Your task to perform on an android device: see creations saved in the google photos Image 0: 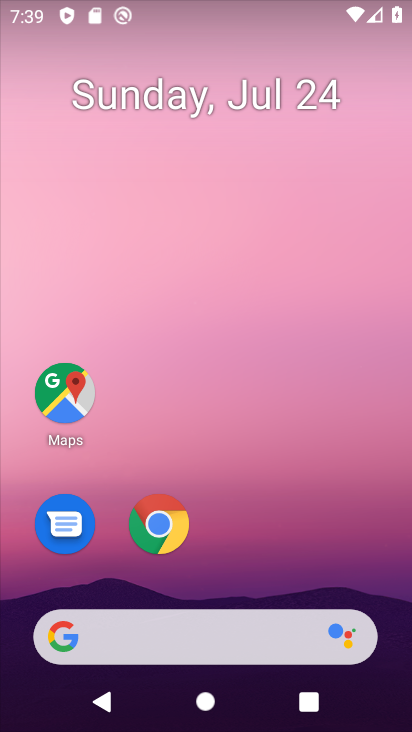
Step 0: drag from (259, 120) to (266, 33)
Your task to perform on an android device: see creations saved in the google photos Image 1: 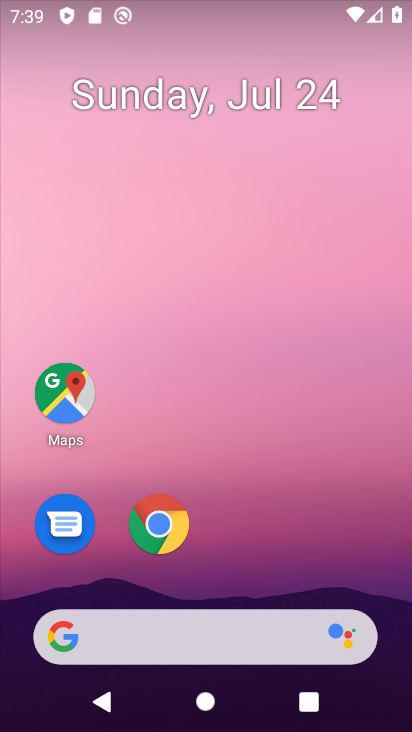
Step 1: drag from (260, 241) to (287, 26)
Your task to perform on an android device: see creations saved in the google photos Image 2: 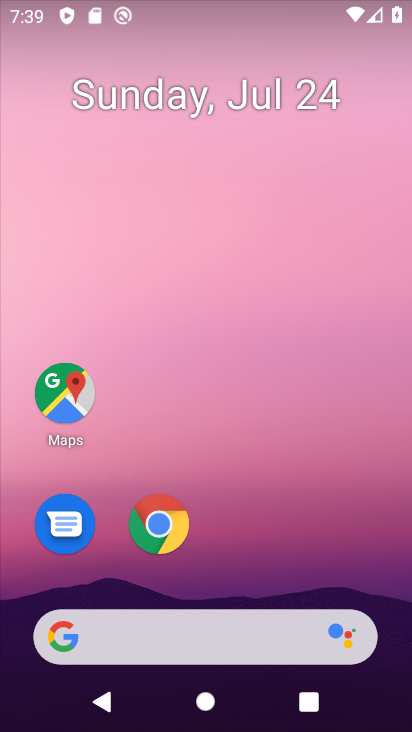
Step 2: drag from (248, 555) to (282, 35)
Your task to perform on an android device: see creations saved in the google photos Image 3: 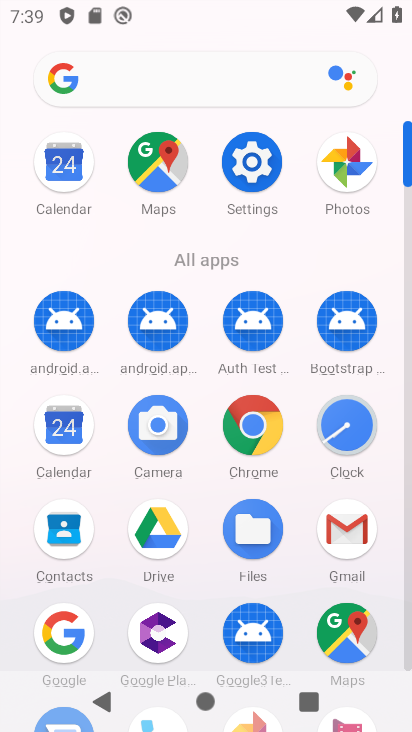
Step 3: click (340, 160)
Your task to perform on an android device: see creations saved in the google photos Image 4: 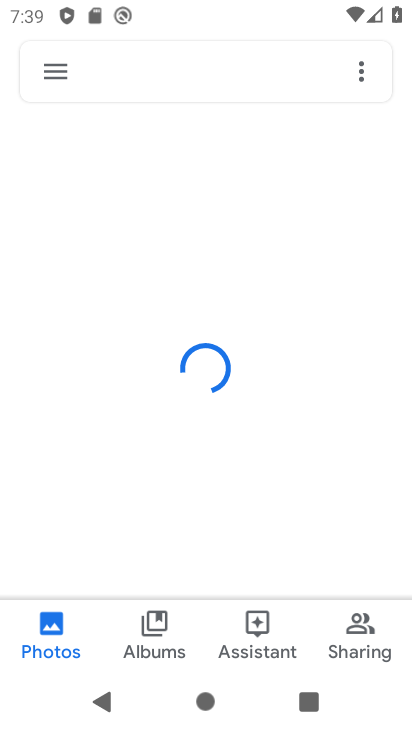
Step 4: click (221, 62)
Your task to perform on an android device: see creations saved in the google photos Image 5: 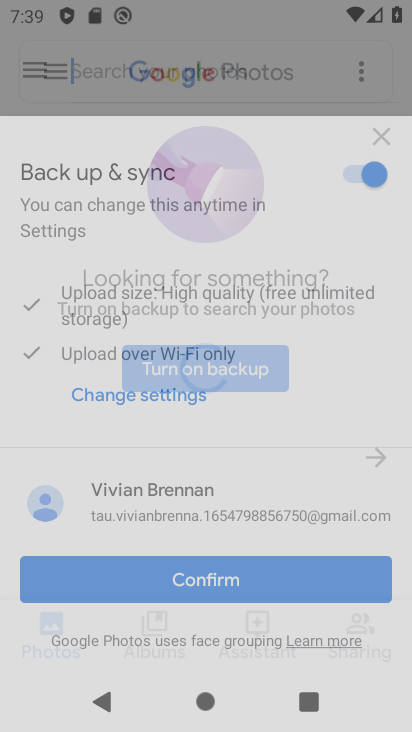
Step 5: click (243, 591)
Your task to perform on an android device: see creations saved in the google photos Image 6: 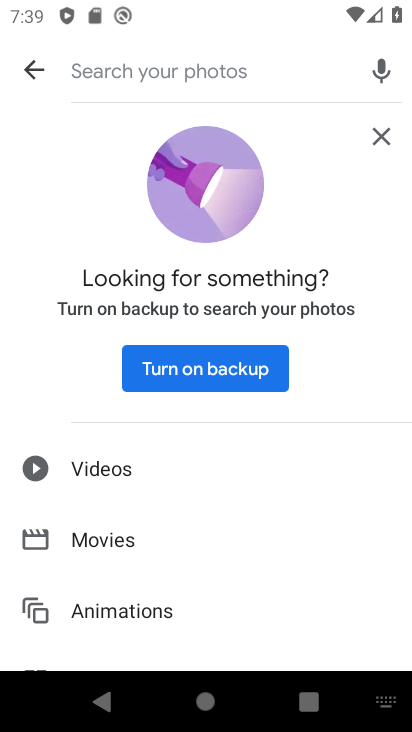
Step 6: click (253, 374)
Your task to perform on an android device: see creations saved in the google photos Image 7: 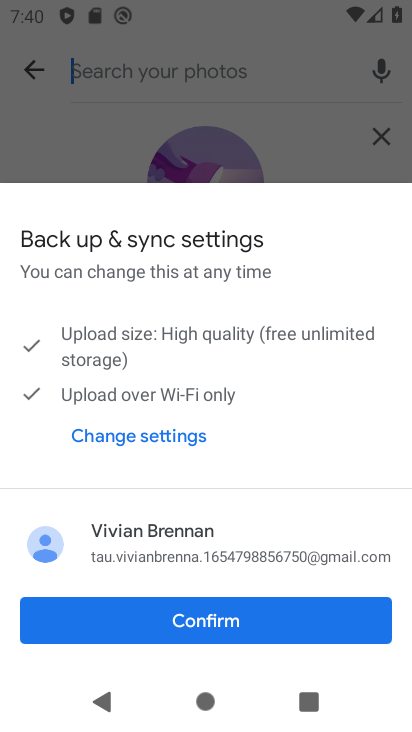
Step 7: click (226, 620)
Your task to perform on an android device: see creations saved in the google photos Image 8: 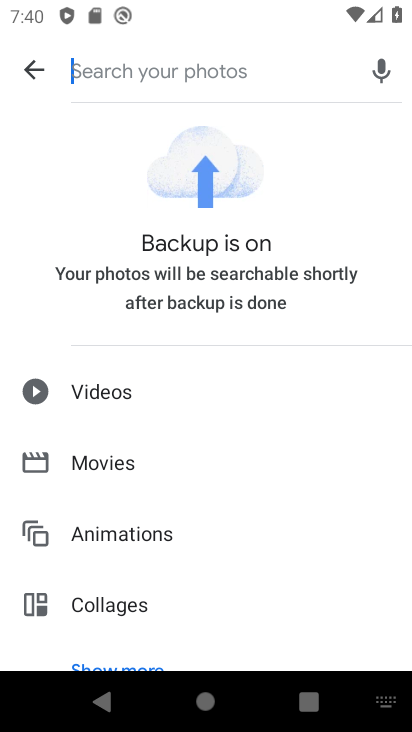
Step 8: drag from (211, 493) to (216, 307)
Your task to perform on an android device: see creations saved in the google photos Image 9: 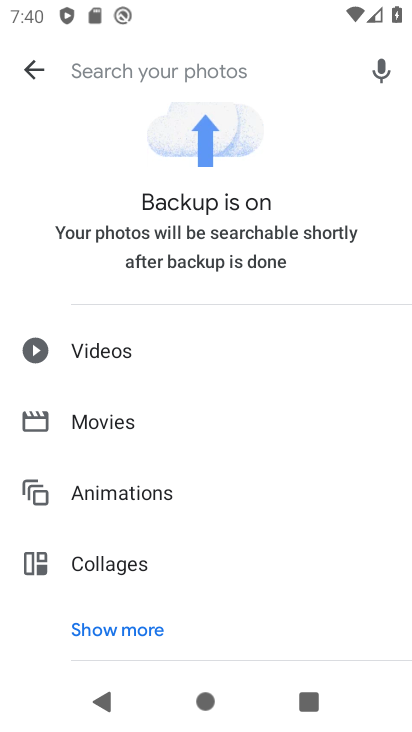
Step 9: click (141, 625)
Your task to perform on an android device: see creations saved in the google photos Image 10: 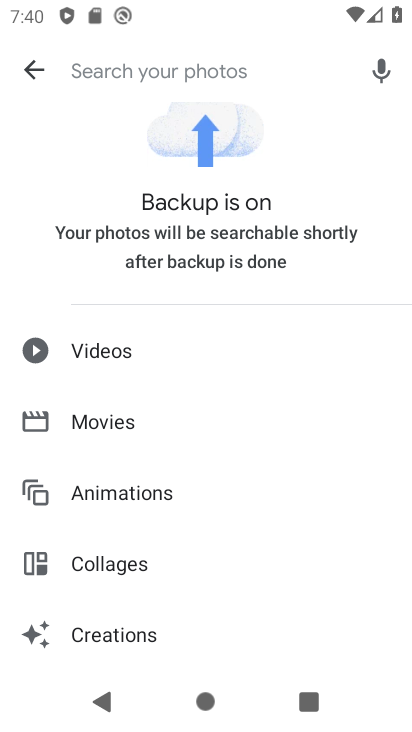
Step 10: click (129, 624)
Your task to perform on an android device: see creations saved in the google photos Image 11: 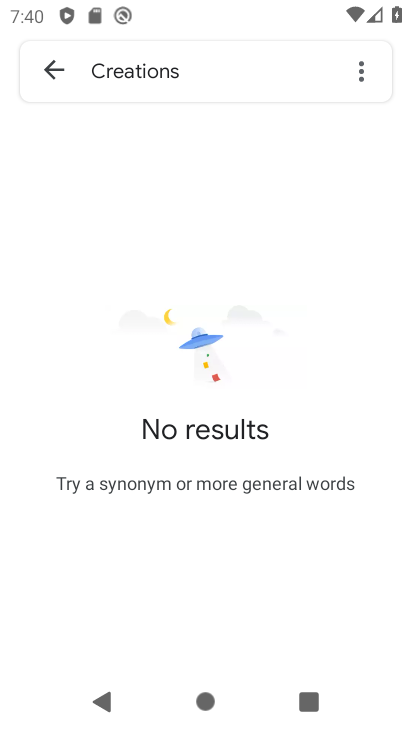
Step 11: task complete